Your task to perform on an android device: open app "Google Calendar" Image 0: 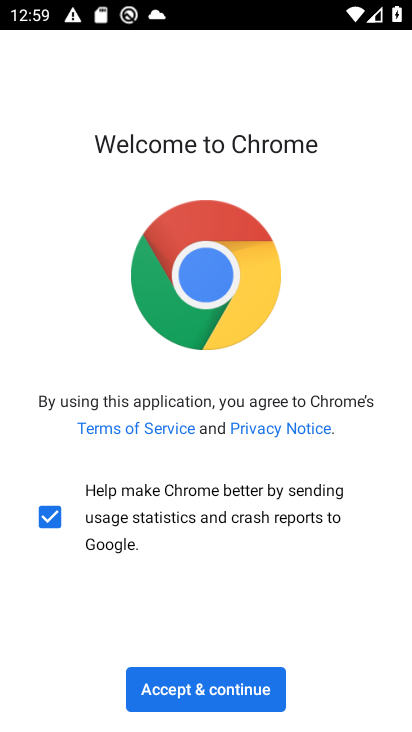
Step 0: press home button
Your task to perform on an android device: open app "Google Calendar" Image 1: 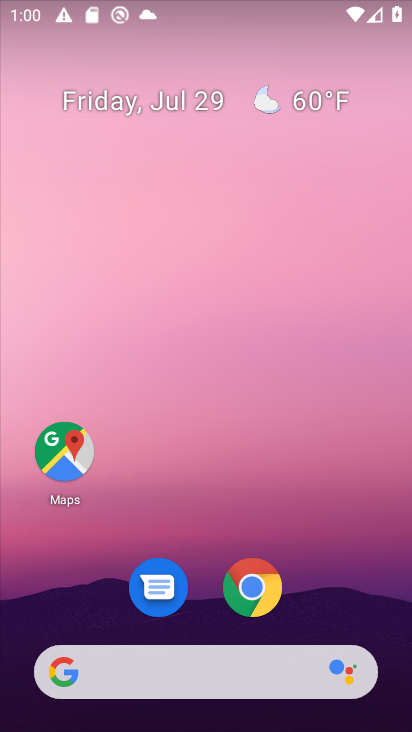
Step 1: drag from (220, 669) to (241, 107)
Your task to perform on an android device: open app "Google Calendar" Image 2: 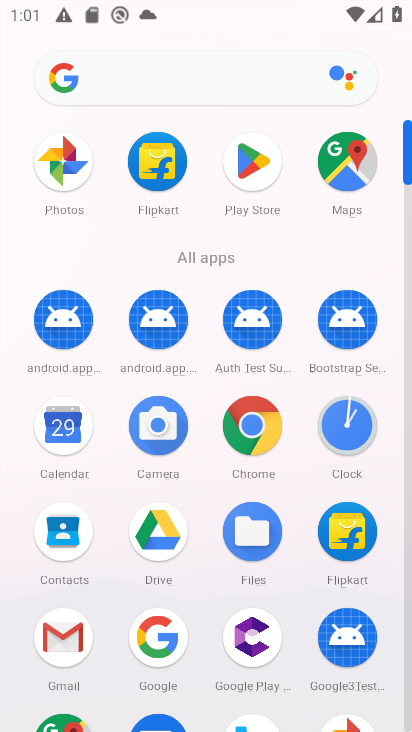
Step 2: click (262, 155)
Your task to perform on an android device: open app "Google Calendar" Image 3: 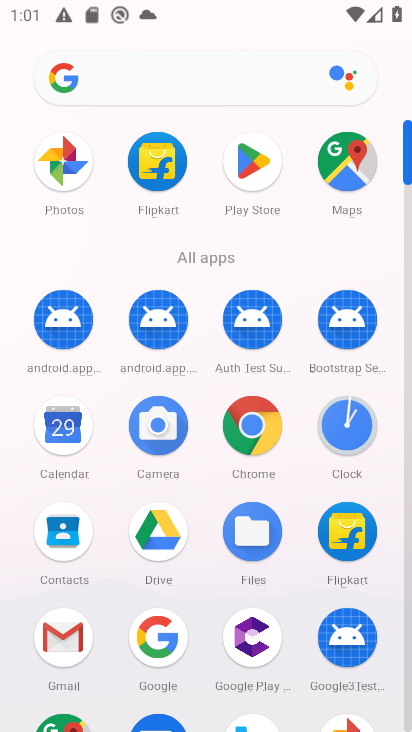
Step 3: click (262, 155)
Your task to perform on an android device: open app "Google Calendar" Image 4: 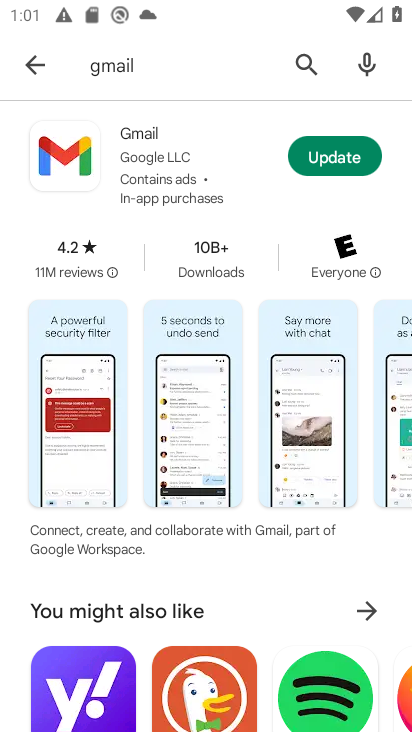
Step 4: click (299, 57)
Your task to perform on an android device: open app "Google Calendar" Image 5: 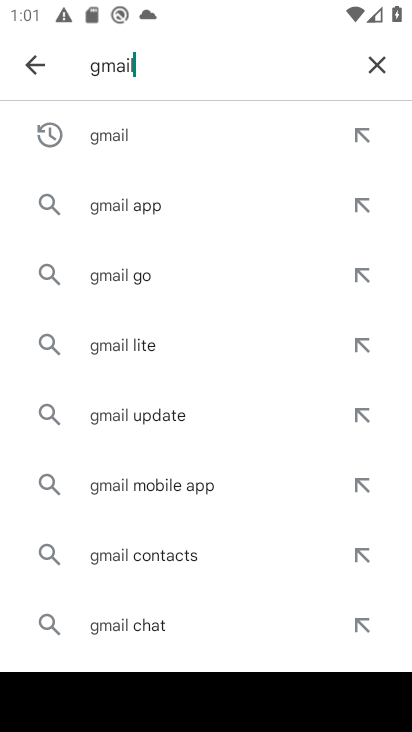
Step 5: click (388, 60)
Your task to perform on an android device: open app "Google Calendar" Image 6: 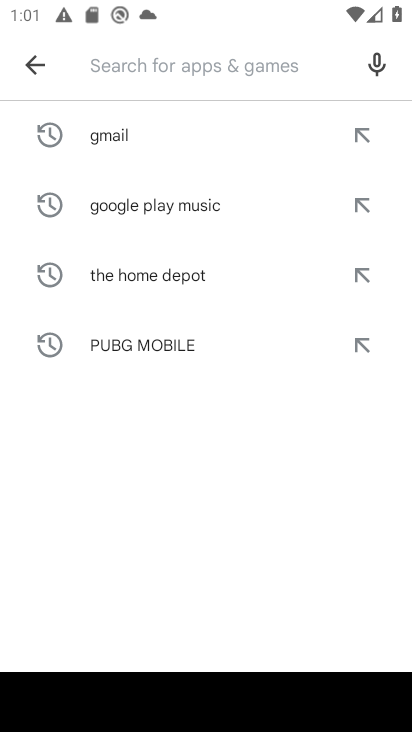
Step 6: type "google calender"
Your task to perform on an android device: open app "Google Calendar" Image 7: 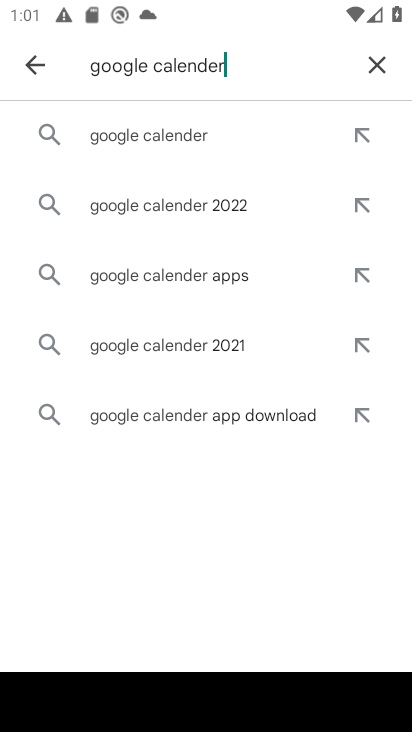
Step 7: click (202, 136)
Your task to perform on an android device: open app "Google Calendar" Image 8: 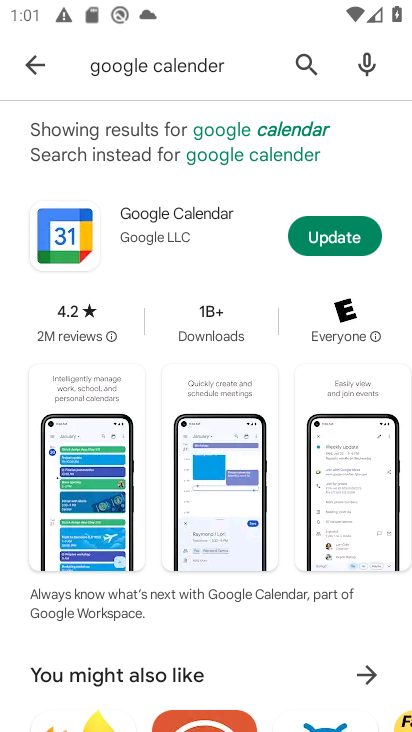
Step 8: click (182, 198)
Your task to perform on an android device: open app "Google Calendar" Image 9: 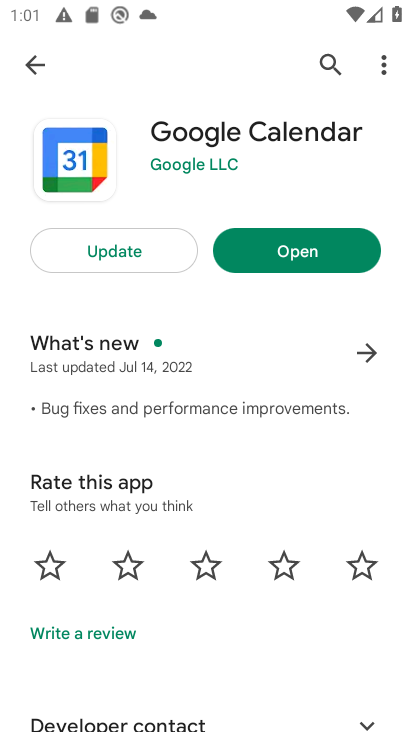
Step 9: click (303, 250)
Your task to perform on an android device: open app "Google Calendar" Image 10: 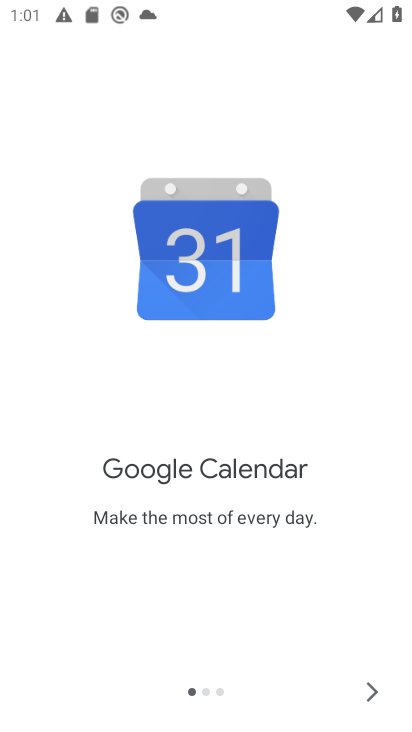
Step 10: click (389, 696)
Your task to perform on an android device: open app "Google Calendar" Image 11: 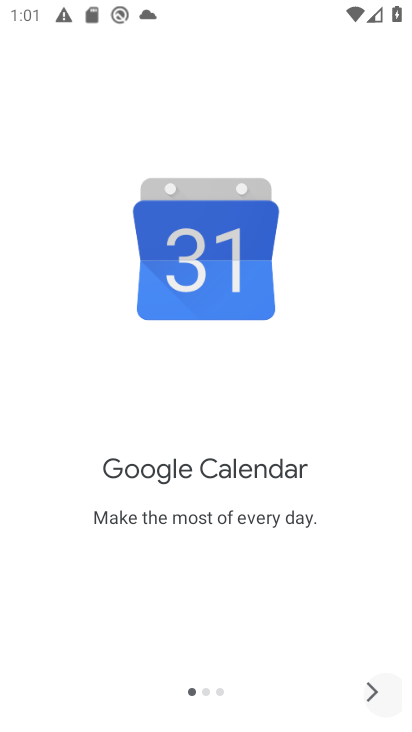
Step 11: click (389, 696)
Your task to perform on an android device: open app "Google Calendar" Image 12: 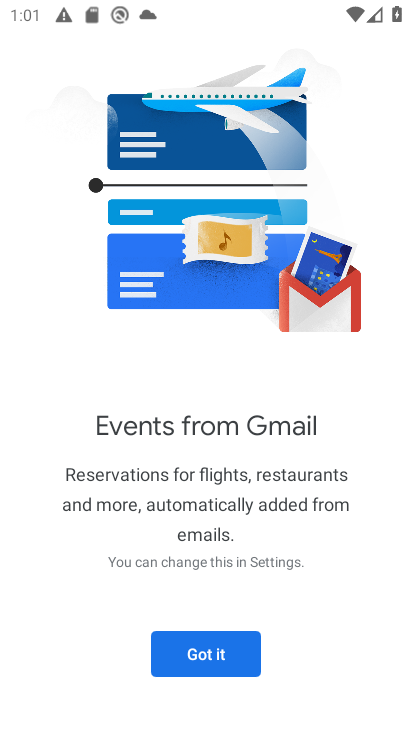
Step 12: click (362, 696)
Your task to perform on an android device: open app "Google Calendar" Image 13: 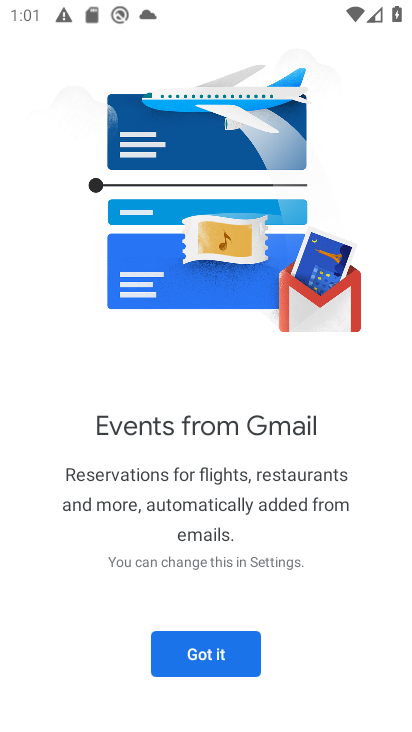
Step 13: click (219, 643)
Your task to perform on an android device: open app "Google Calendar" Image 14: 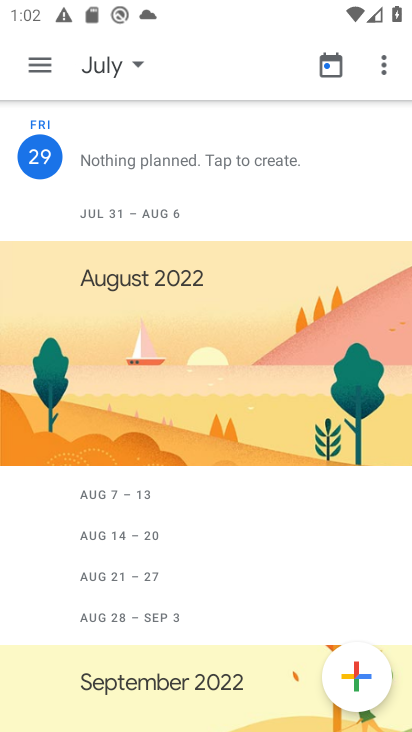
Step 14: task complete